Your task to perform on an android device: open device folders in google photos Image 0: 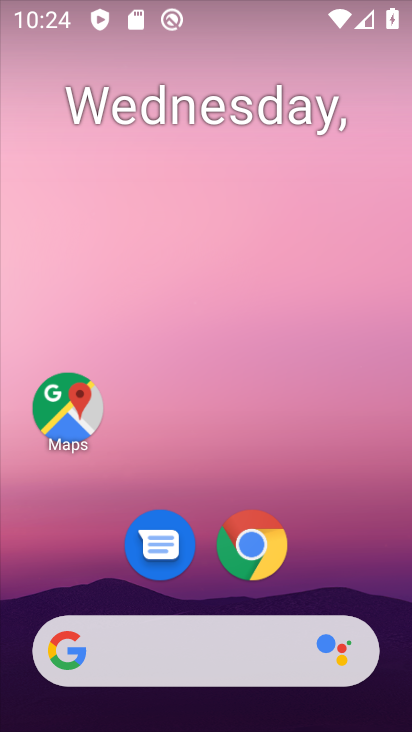
Step 0: drag from (189, 598) to (217, 109)
Your task to perform on an android device: open device folders in google photos Image 1: 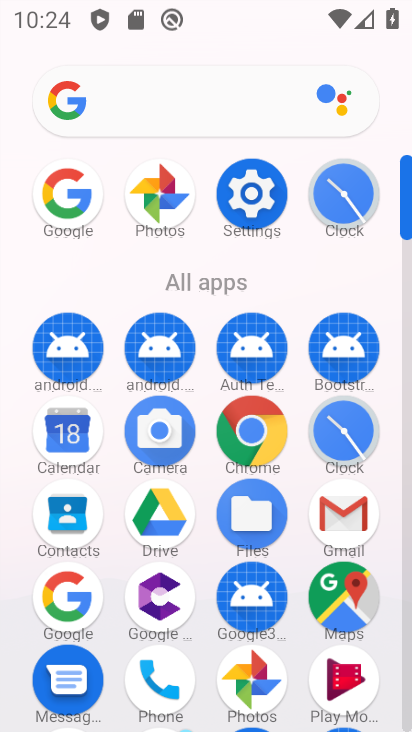
Step 1: click (246, 666)
Your task to perform on an android device: open device folders in google photos Image 2: 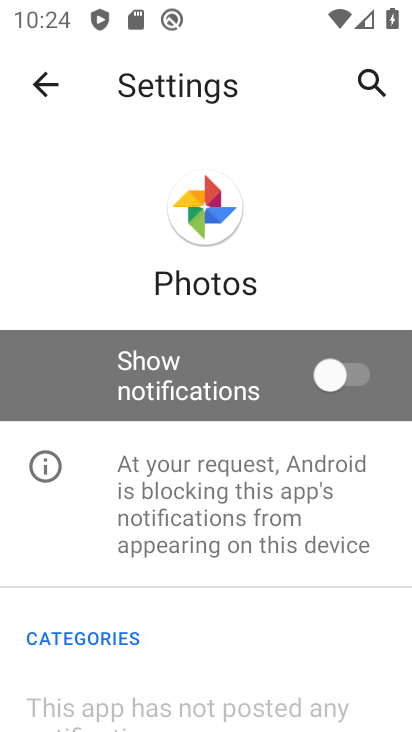
Step 2: click (35, 76)
Your task to perform on an android device: open device folders in google photos Image 3: 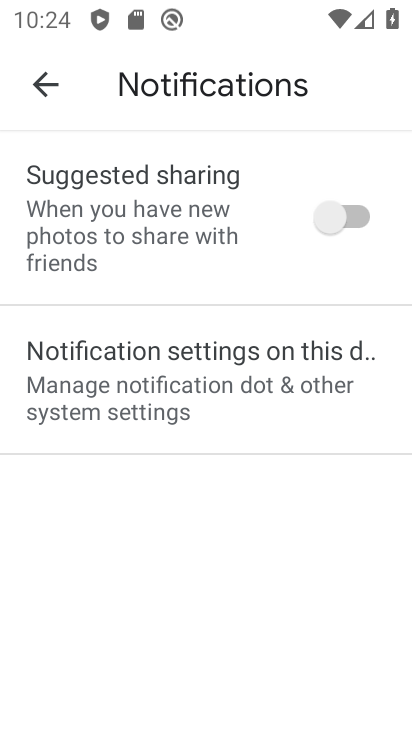
Step 3: click (35, 76)
Your task to perform on an android device: open device folders in google photos Image 4: 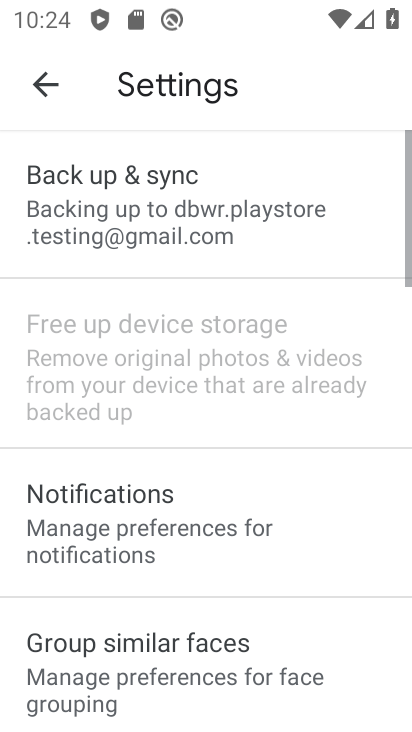
Step 4: click (35, 76)
Your task to perform on an android device: open device folders in google photos Image 5: 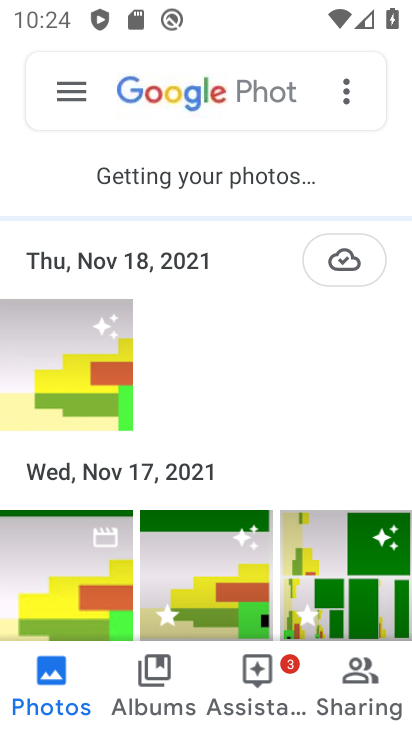
Step 5: click (60, 89)
Your task to perform on an android device: open device folders in google photos Image 6: 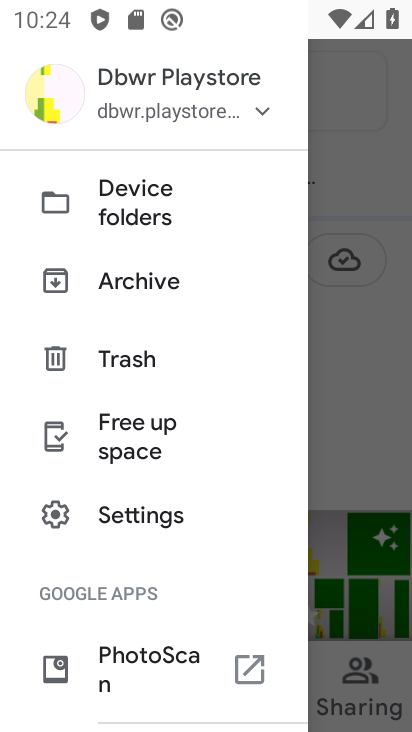
Step 6: click (94, 182)
Your task to perform on an android device: open device folders in google photos Image 7: 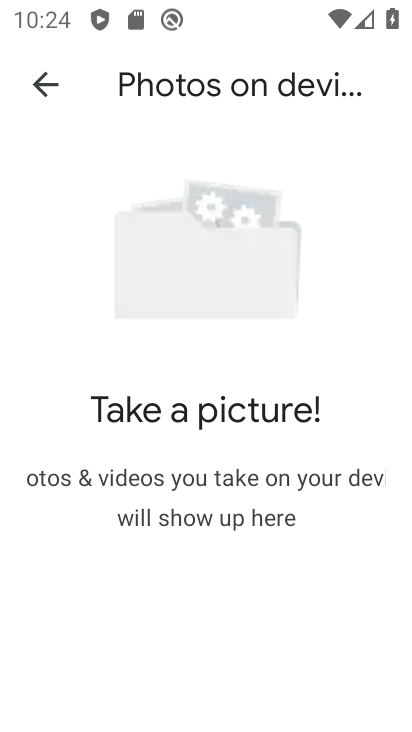
Step 7: task complete